Your task to perform on an android device: Go to settings Image 0: 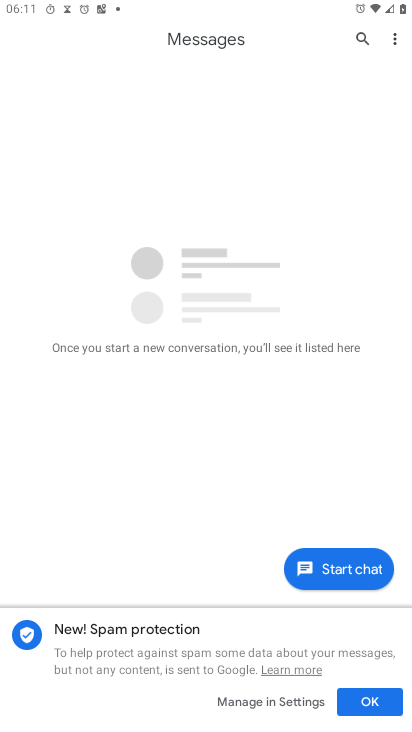
Step 0: press home button
Your task to perform on an android device: Go to settings Image 1: 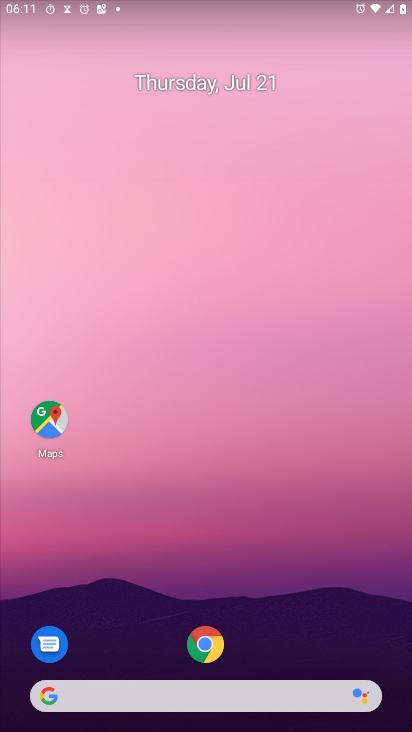
Step 1: drag from (321, 595) to (348, 119)
Your task to perform on an android device: Go to settings Image 2: 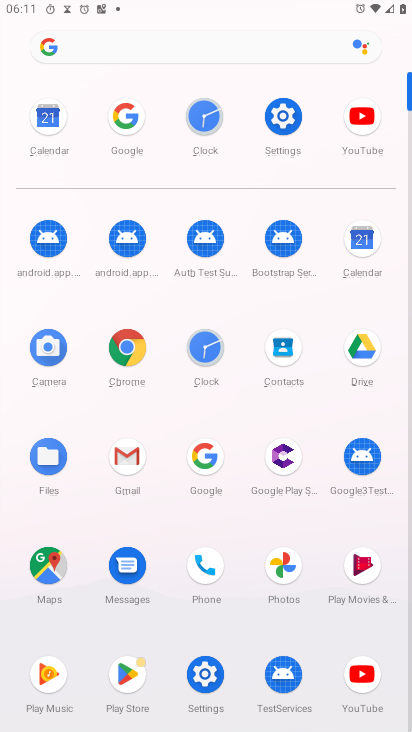
Step 2: click (297, 109)
Your task to perform on an android device: Go to settings Image 3: 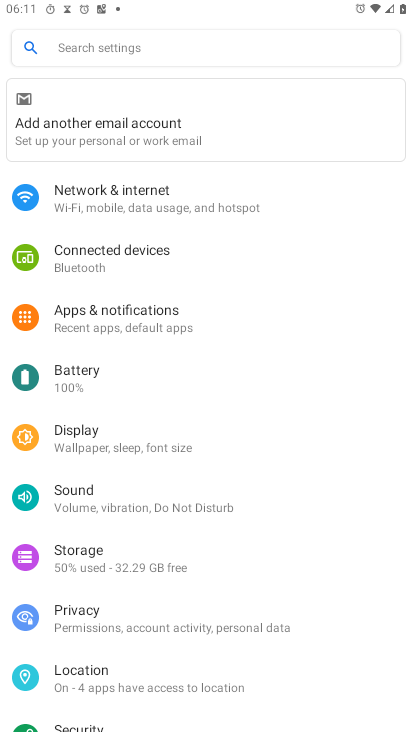
Step 3: task complete